Your task to perform on an android device: Search for pizza restaurants on Maps Image 0: 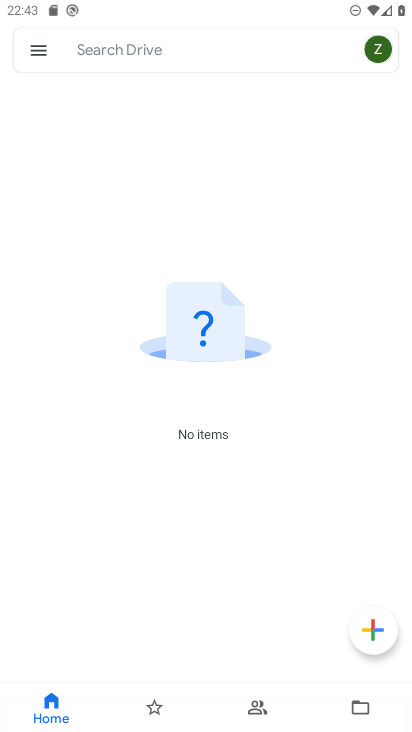
Step 0: press home button
Your task to perform on an android device: Search for pizza restaurants on Maps Image 1: 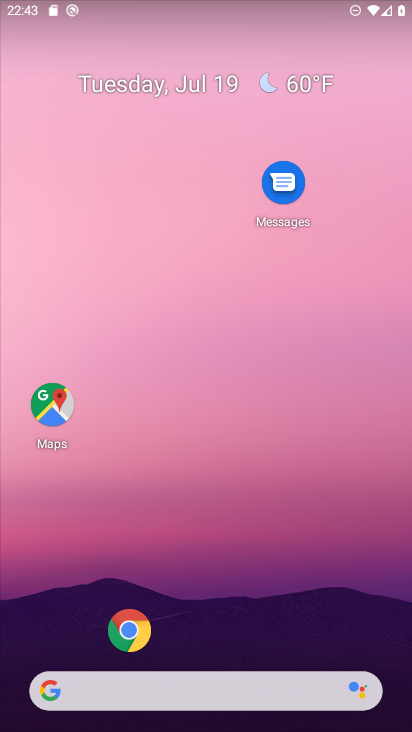
Step 1: click (51, 405)
Your task to perform on an android device: Search for pizza restaurants on Maps Image 2: 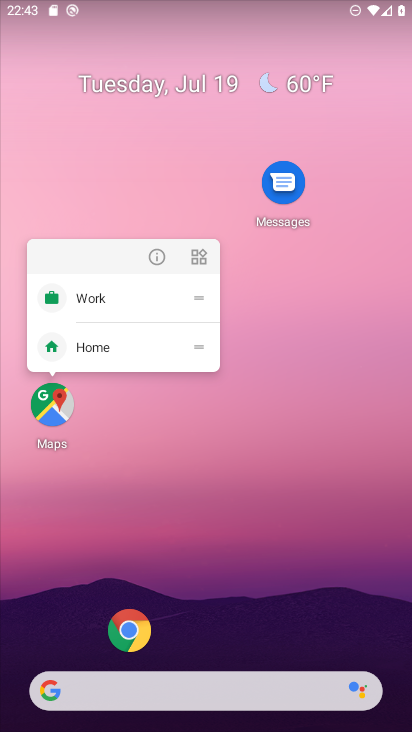
Step 2: click (47, 413)
Your task to perform on an android device: Search for pizza restaurants on Maps Image 3: 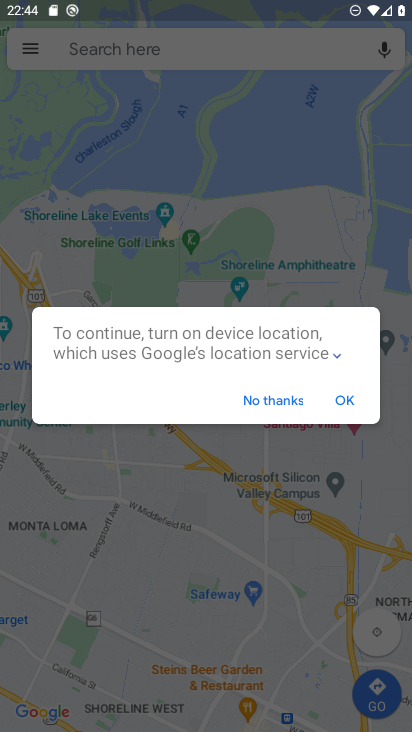
Step 3: click (340, 398)
Your task to perform on an android device: Search for pizza restaurants on Maps Image 4: 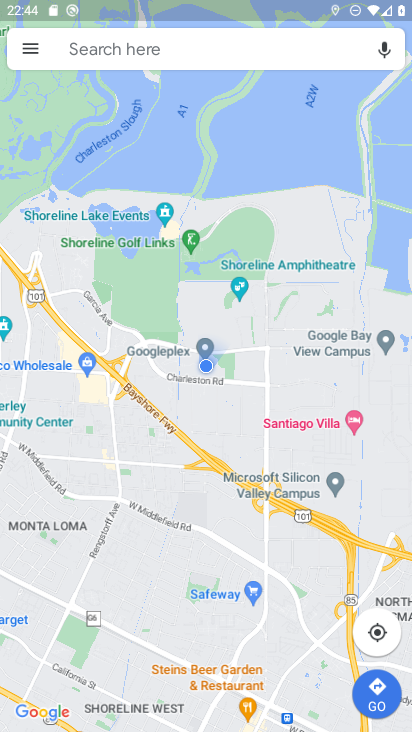
Step 4: click (76, 55)
Your task to perform on an android device: Search for pizza restaurants on Maps Image 5: 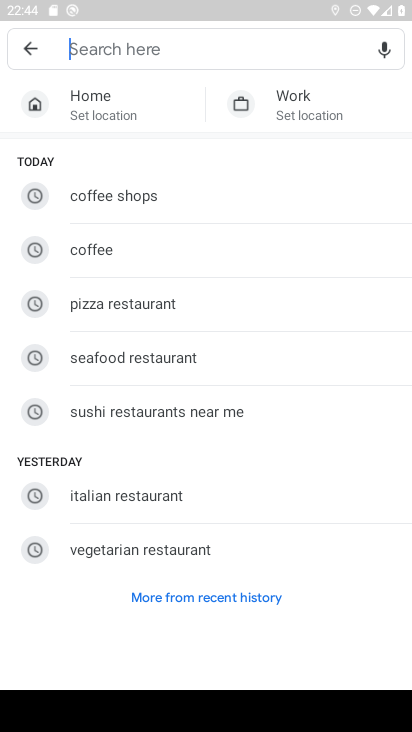
Step 5: click (141, 304)
Your task to perform on an android device: Search for pizza restaurants on Maps Image 6: 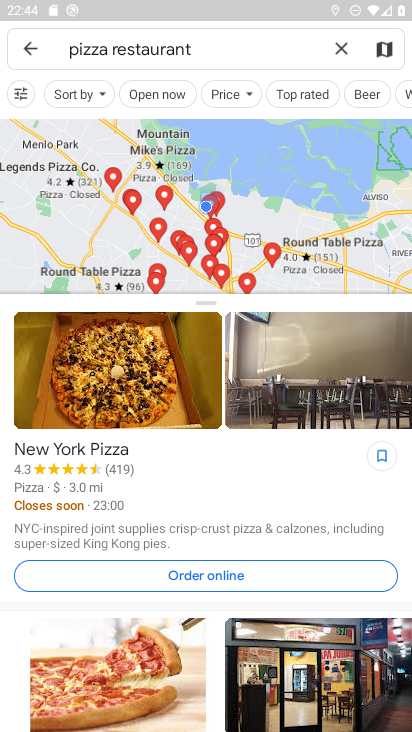
Step 6: task complete